Your task to perform on an android device: open a new tab in the chrome app Image 0: 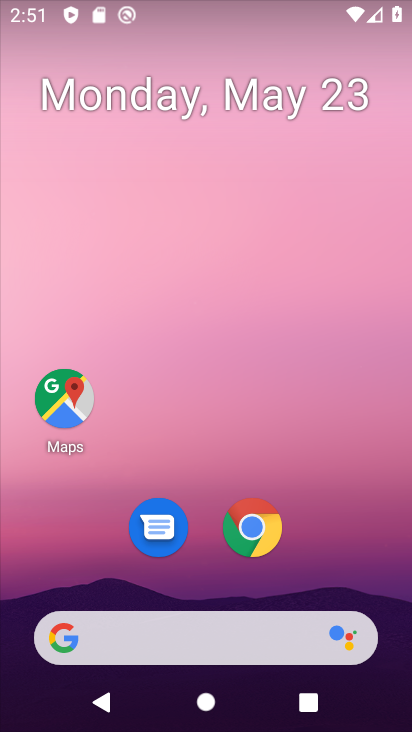
Step 0: drag from (301, 662) to (156, 193)
Your task to perform on an android device: open a new tab in the chrome app Image 1: 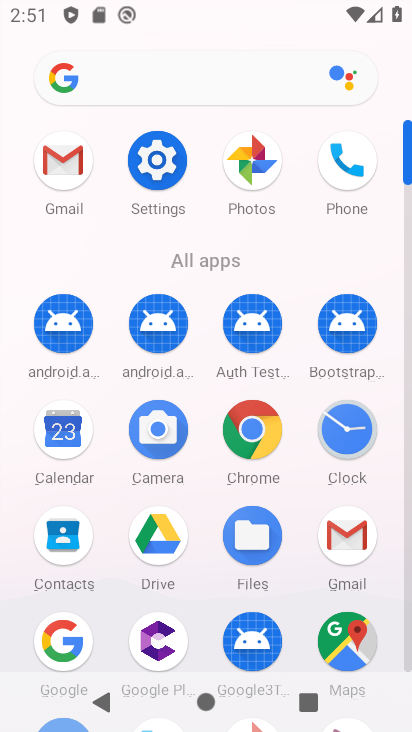
Step 1: click (242, 417)
Your task to perform on an android device: open a new tab in the chrome app Image 2: 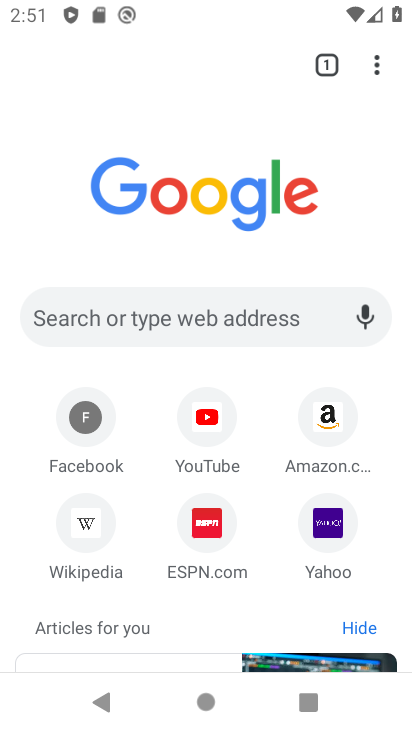
Step 2: click (372, 88)
Your task to perform on an android device: open a new tab in the chrome app Image 3: 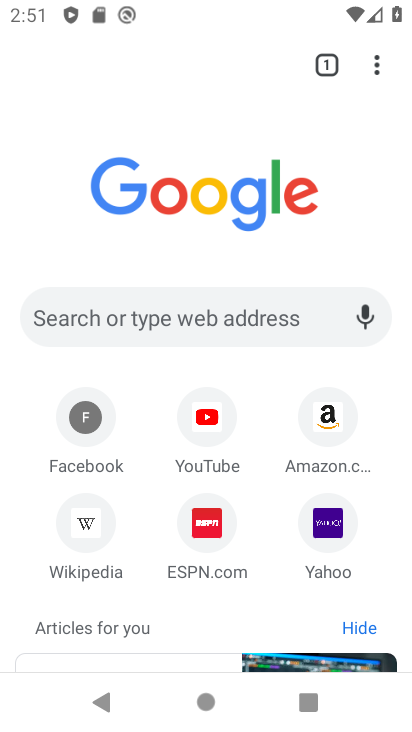
Step 3: click (370, 72)
Your task to perform on an android device: open a new tab in the chrome app Image 4: 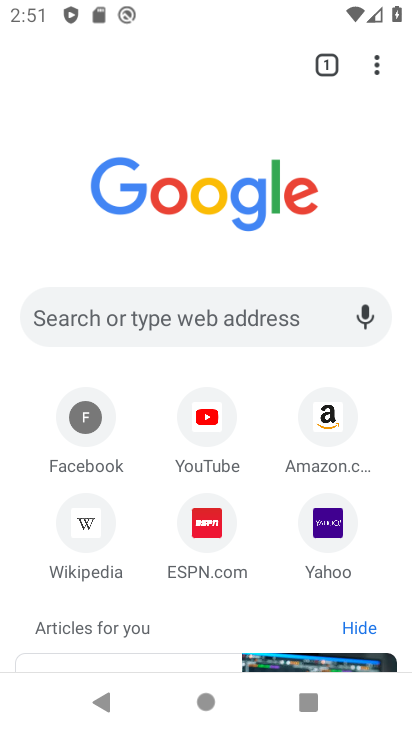
Step 4: click (370, 65)
Your task to perform on an android device: open a new tab in the chrome app Image 5: 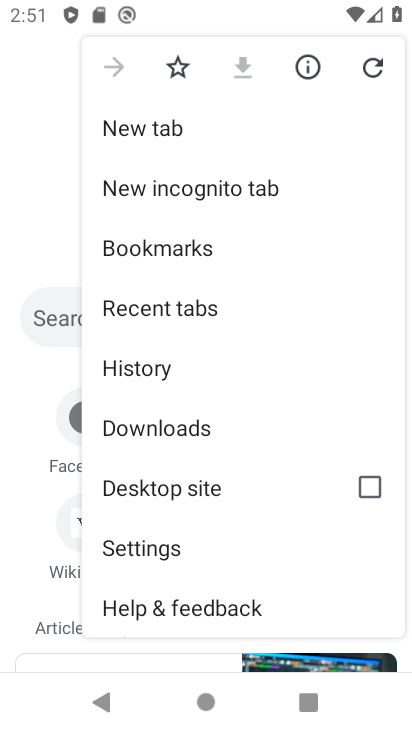
Step 5: click (190, 128)
Your task to perform on an android device: open a new tab in the chrome app Image 6: 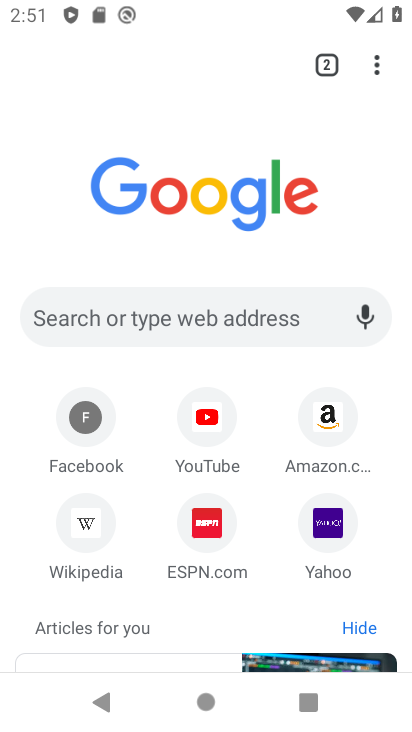
Step 6: task complete